Your task to perform on an android device: Open Amazon Image 0: 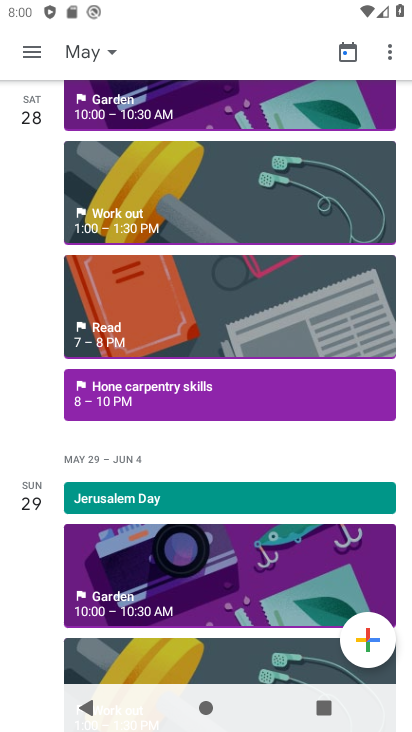
Step 0: press home button
Your task to perform on an android device: Open Amazon Image 1: 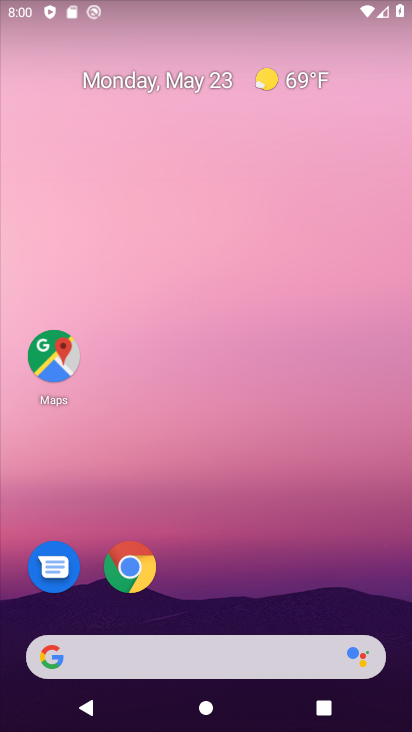
Step 1: click (131, 558)
Your task to perform on an android device: Open Amazon Image 2: 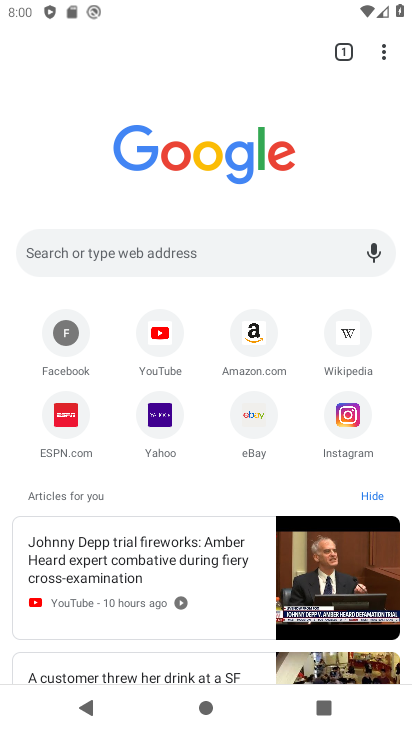
Step 2: click (262, 333)
Your task to perform on an android device: Open Amazon Image 3: 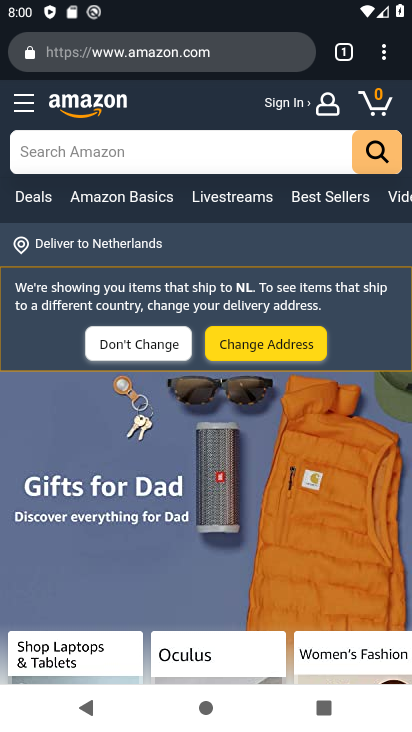
Step 3: task complete